Your task to perform on an android device: Open battery settings Image 0: 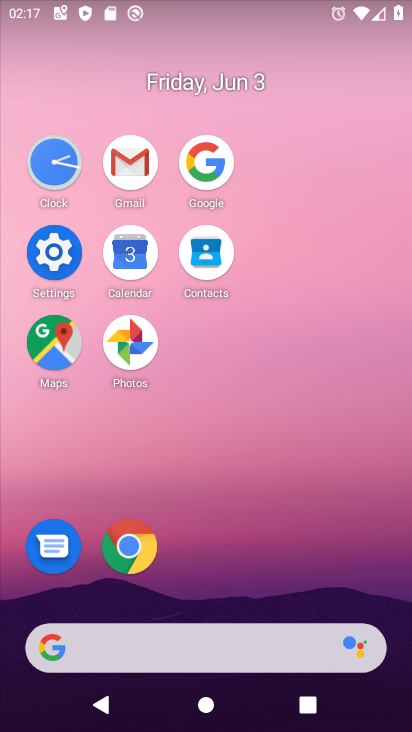
Step 0: click (75, 254)
Your task to perform on an android device: Open battery settings Image 1: 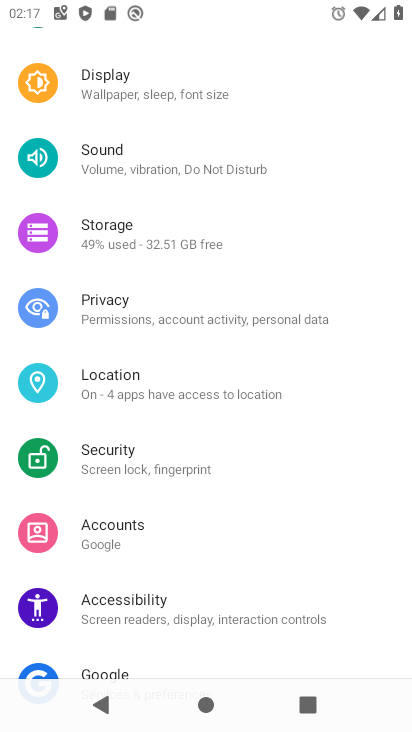
Step 1: drag from (264, 138) to (287, 467)
Your task to perform on an android device: Open battery settings Image 2: 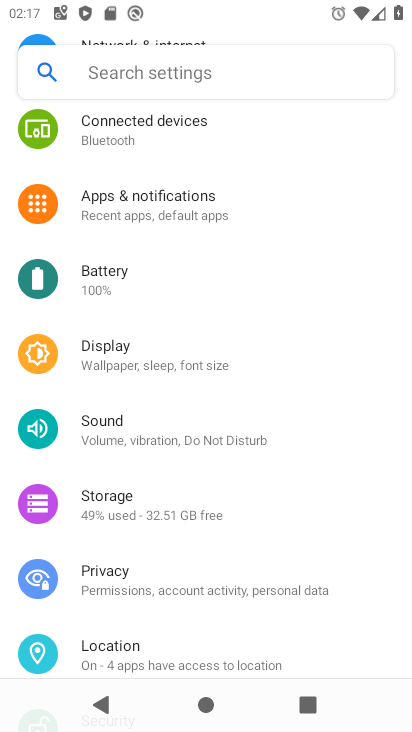
Step 2: click (133, 274)
Your task to perform on an android device: Open battery settings Image 3: 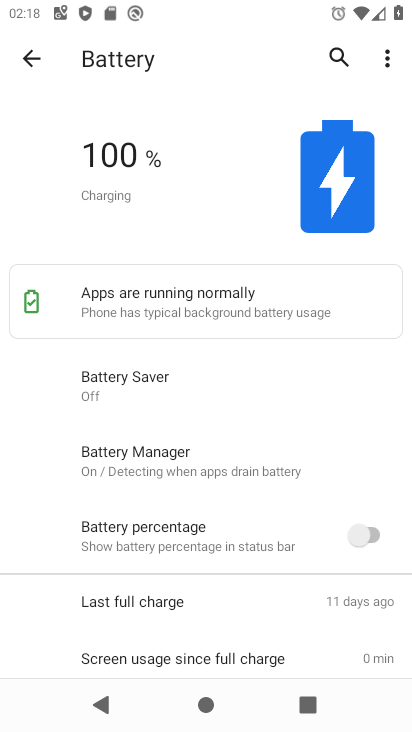
Step 3: task complete